Your task to perform on an android device: Open Reddit.com Image 0: 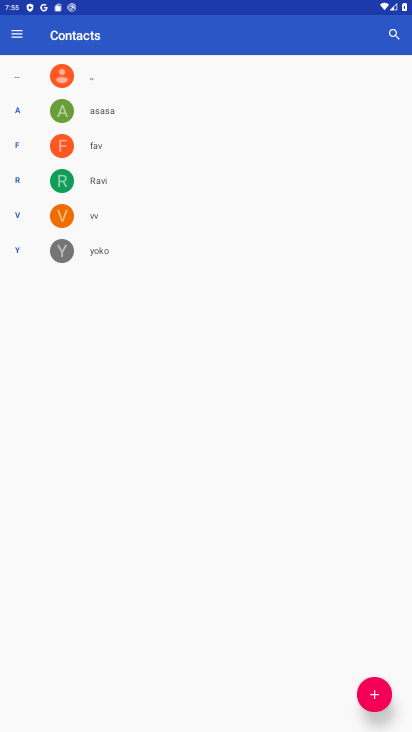
Step 0: press home button
Your task to perform on an android device: Open Reddit.com Image 1: 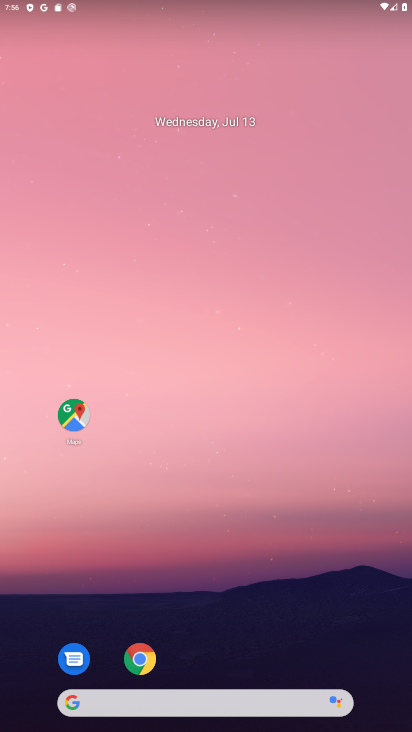
Step 1: click (207, 696)
Your task to perform on an android device: Open Reddit.com Image 2: 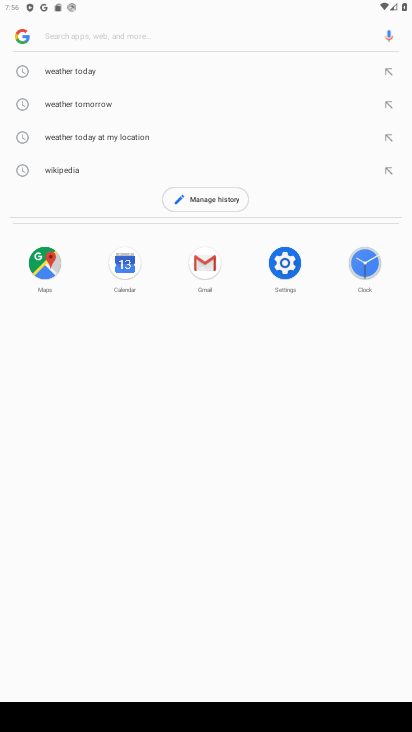
Step 2: type "reddit.com"
Your task to perform on an android device: Open Reddit.com Image 3: 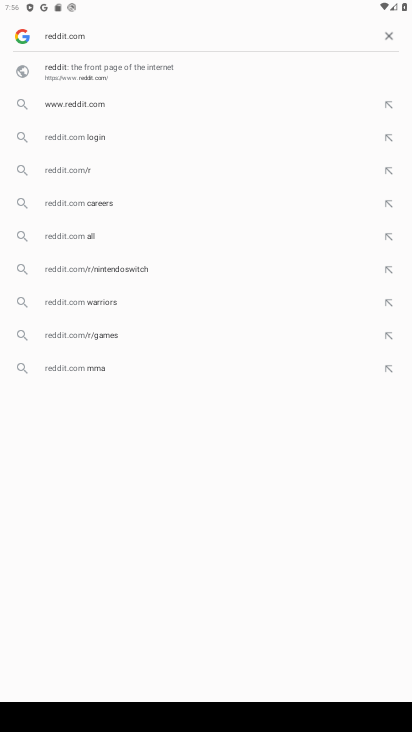
Step 3: click (152, 116)
Your task to perform on an android device: Open Reddit.com Image 4: 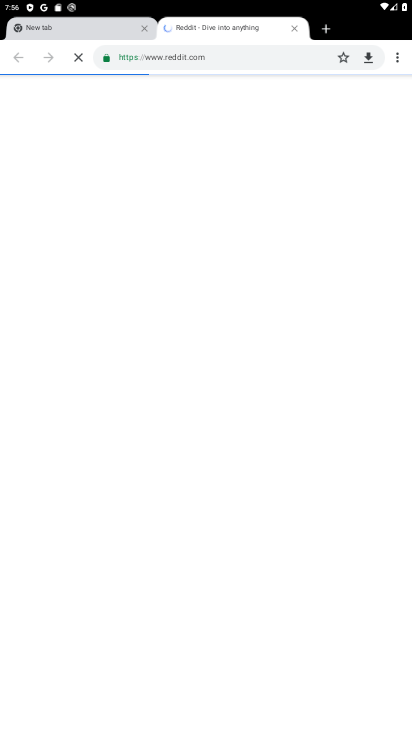
Step 4: task complete